Your task to perform on an android device: toggle notification dots Image 0: 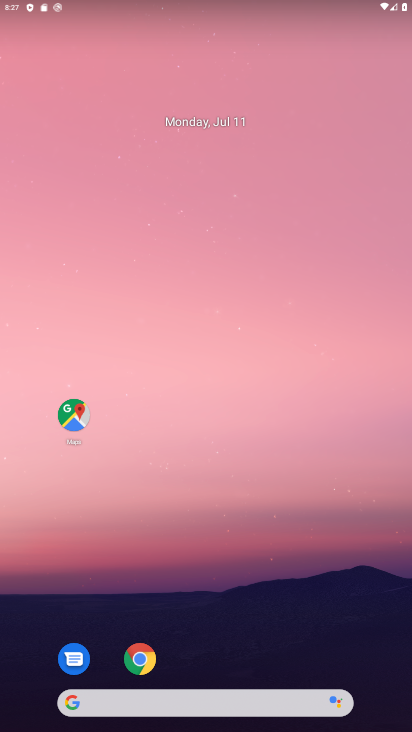
Step 0: drag from (24, 722) to (406, 107)
Your task to perform on an android device: toggle notification dots Image 1: 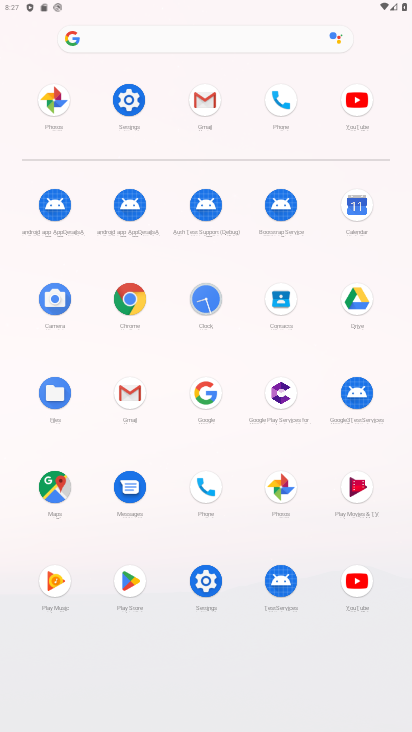
Step 1: click (199, 590)
Your task to perform on an android device: toggle notification dots Image 2: 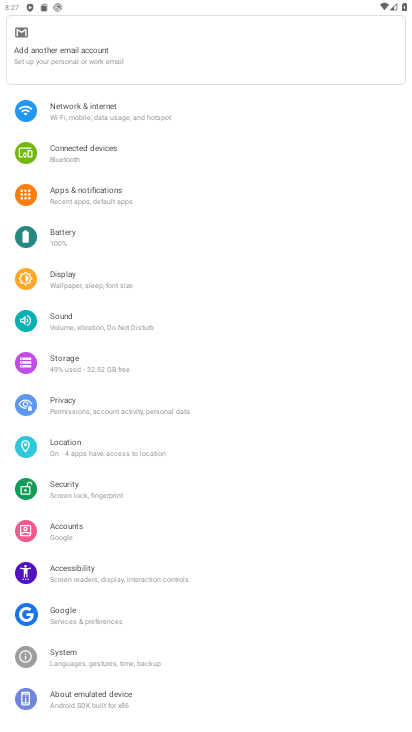
Step 2: click (104, 196)
Your task to perform on an android device: toggle notification dots Image 3: 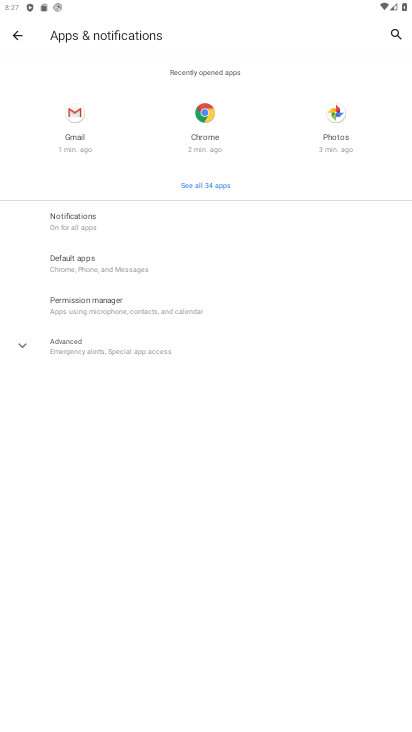
Step 3: click (88, 354)
Your task to perform on an android device: toggle notification dots Image 4: 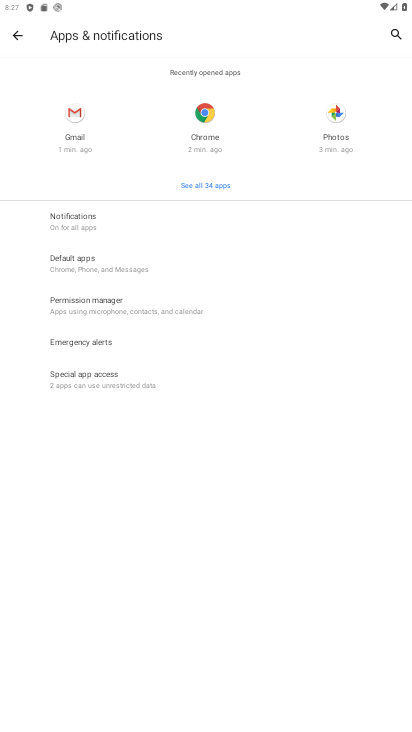
Step 4: click (80, 215)
Your task to perform on an android device: toggle notification dots Image 5: 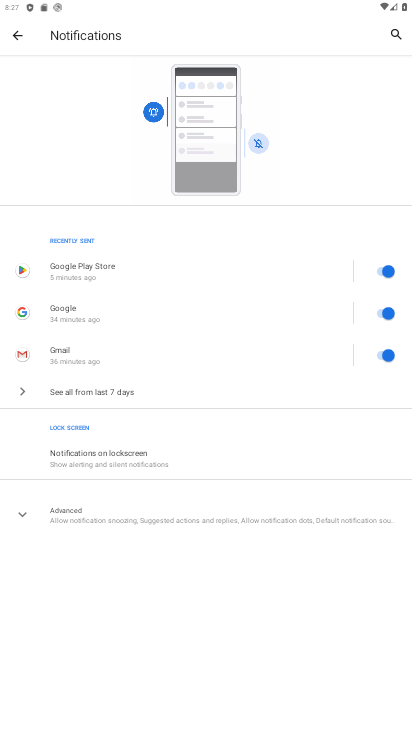
Step 5: click (67, 510)
Your task to perform on an android device: toggle notification dots Image 6: 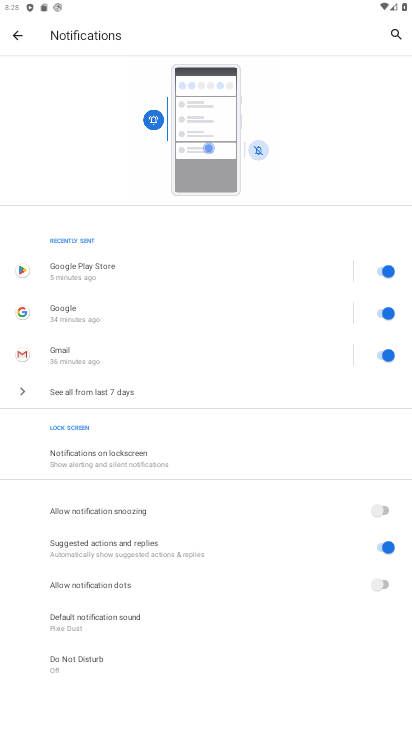
Step 6: click (381, 579)
Your task to perform on an android device: toggle notification dots Image 7: 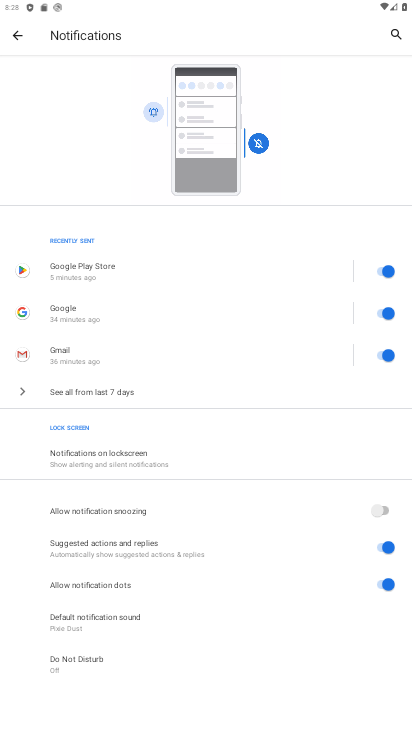
Step 7: task complete